Your task to perform on an android device: Open privacy settings Image 0: 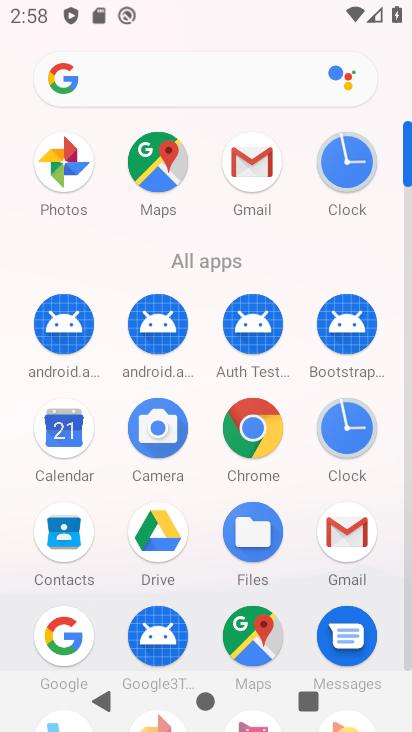
Step 0: press home button
Your task to perform on an android device: Open privacy settings Image 1: 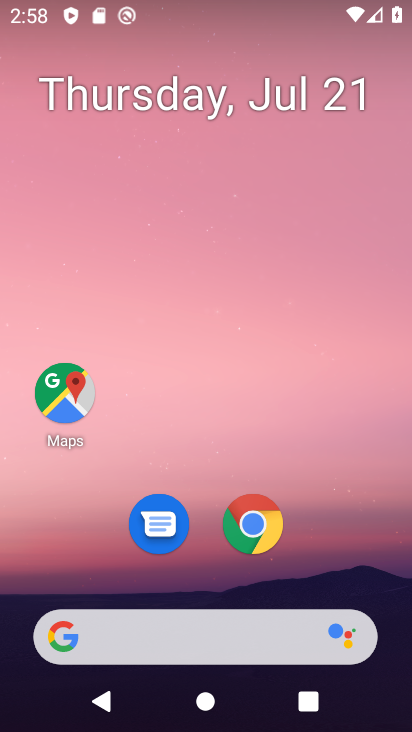
Step 1: drag from (229, 627) to (314, 93)
Your task to perform on an android device: Open privacy settings Image 2: 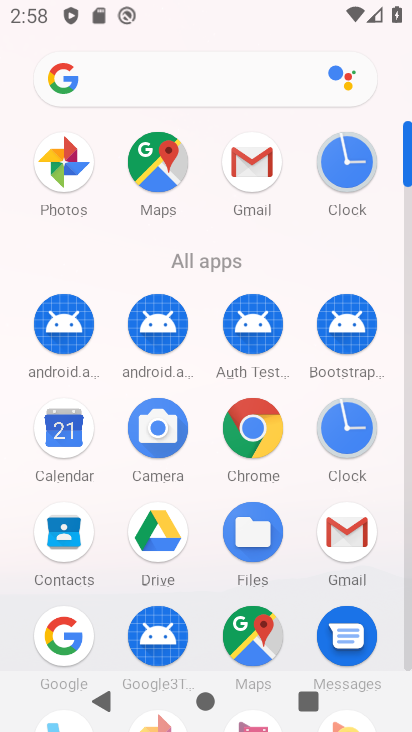
Step 2: drag from (208, 534) to (219, 136)
Your task to perform on an android device: Open privacy settings Image 3: 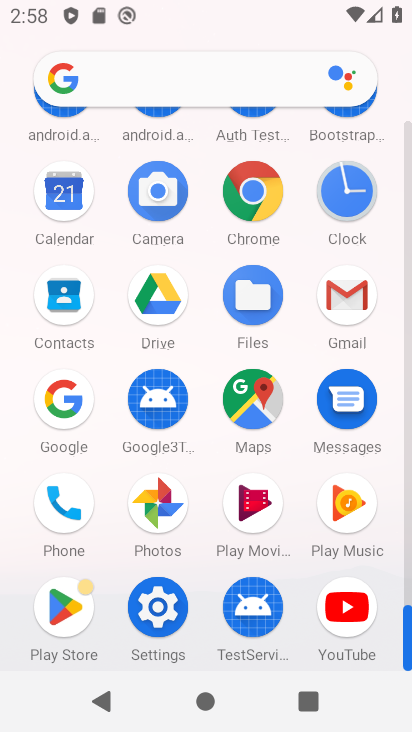
Step 3: click (162, 611)
Your task to perform on an android device: Open privacy settings Image 4: 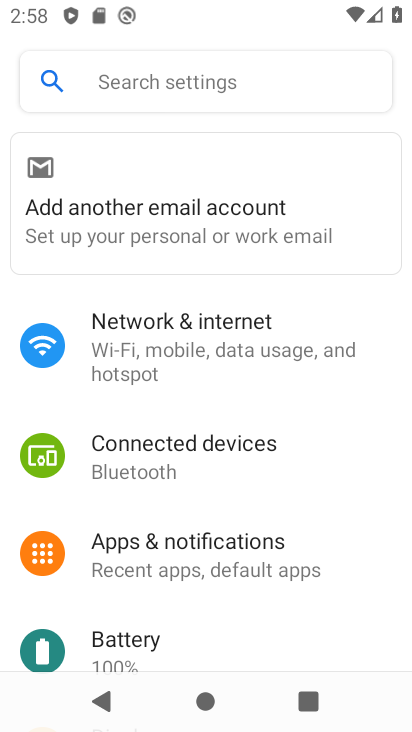
Step 4: drag from (191, 610) to (271, 97)
Your task to perform on an android device: Open privacy settings Image 5: 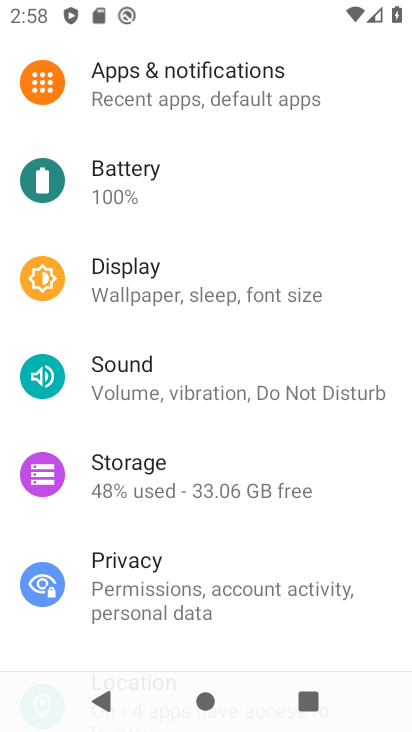
Step 5: click (147, 579)
Your task to perform on an android device: Open privacy settings Image 6: 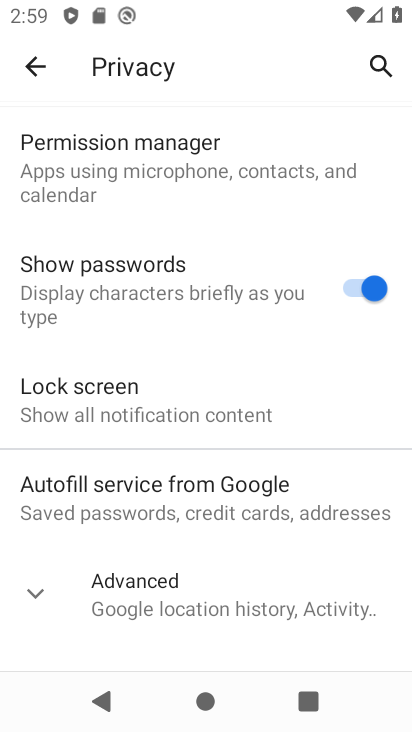
Step 6: task complete